Your task to perform on an android device: clear history in the chrome app Image 0: 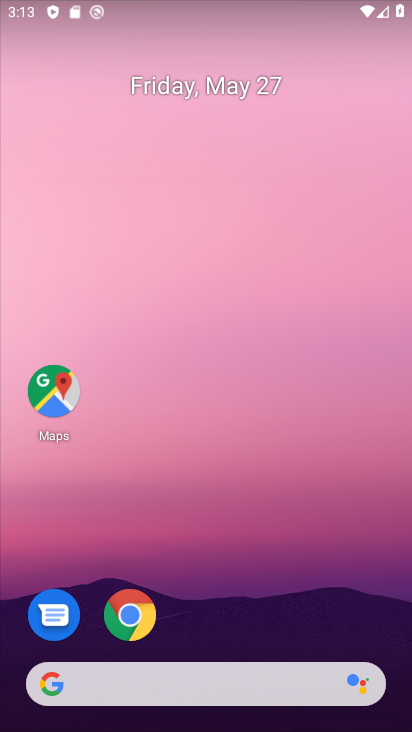
Step 0: click (130, 623)
Your task to perform on an android device: clear history in the chrome app Image 1: 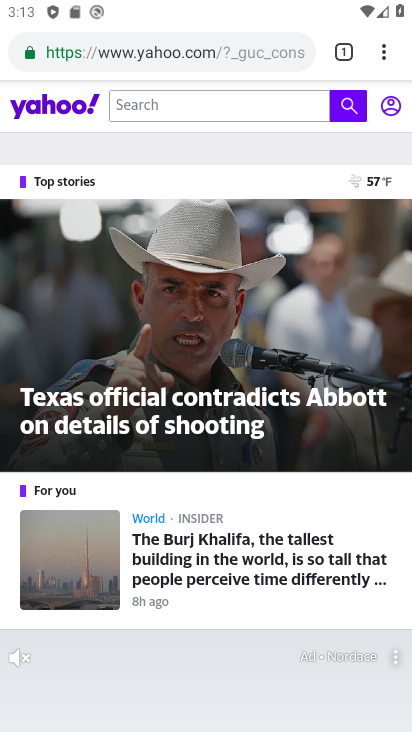
Step 1: click (387, 52)
Your task to perform on an android device: clear history in the chrome app Image 2: 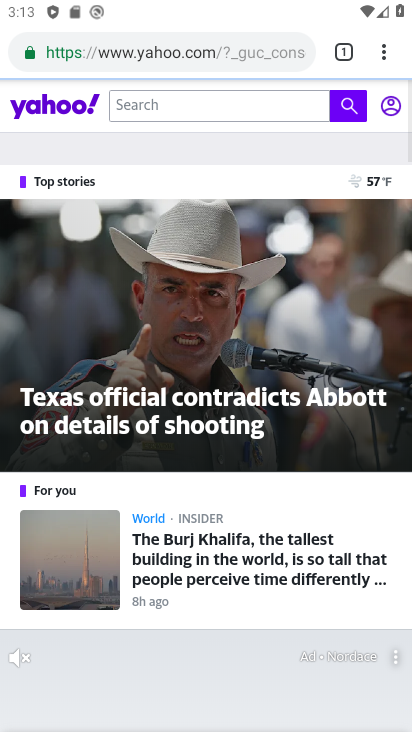
Step 2: click (387, 52)
Your task to perform on an android device: clear history in the chrome app Image 3: 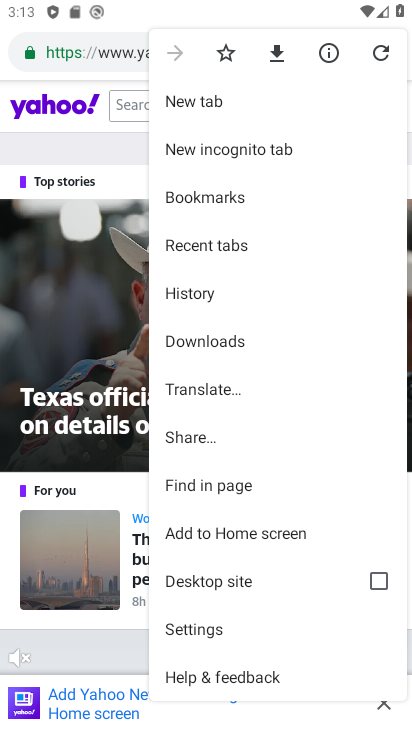
Step 3: click (198, 296)
Your task to perform on an android device: clear history in the chrome app Image 4: 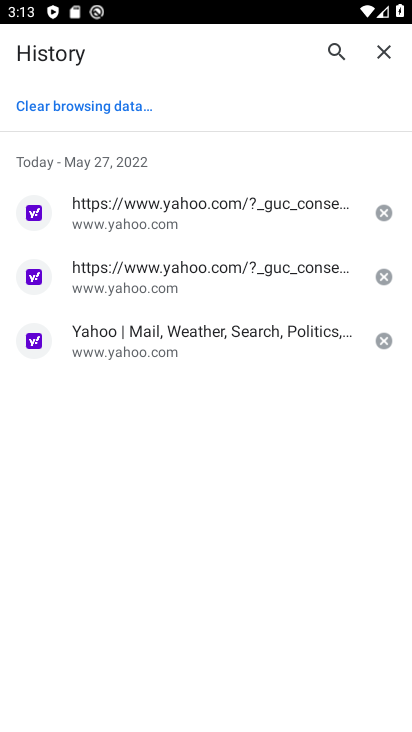
Step 4: click (102, 110)
Your task to perform on an android device: clear history in the chrome app Image 5: 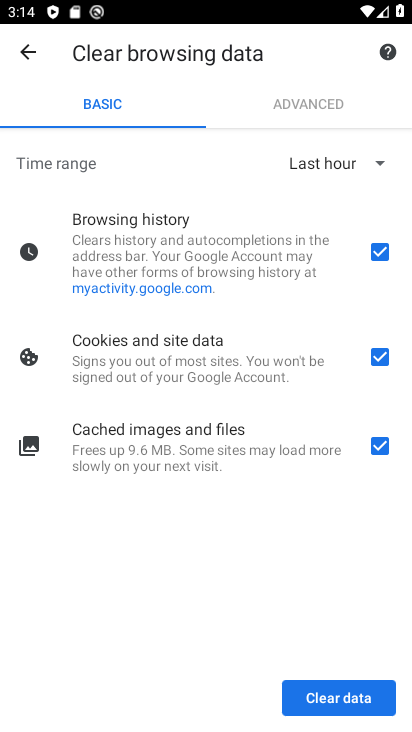
Step 5: click (385, 356)
Your task to perform on an android device: clear history in the chrome app Image 6: 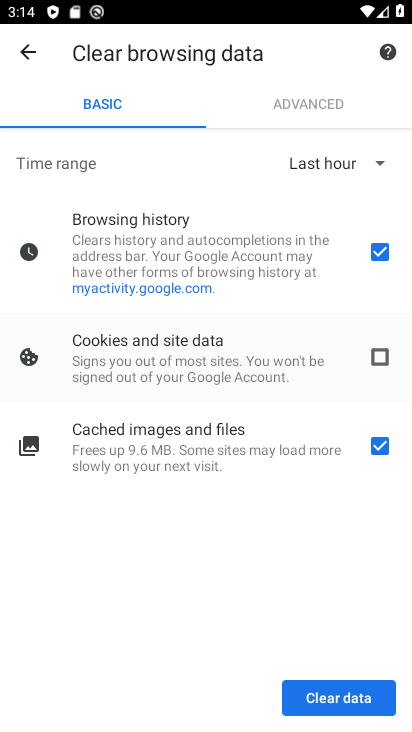
Step 6: click (376, 448)
Your task to perform on an android device: clear history in the chrome app Image 7: 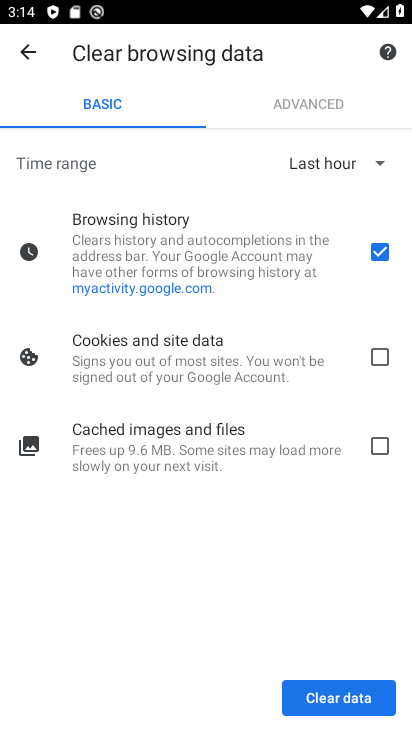
Step 7: click (347, 702)
Your task to perform on an android device: clear history in the chrome app Image 8: 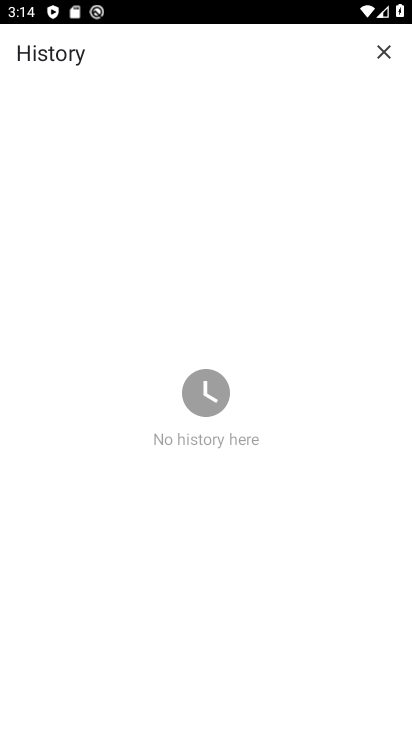
Step 8: task complete